Your task to perform on an android device: turn on bluetooth scan Image 0: 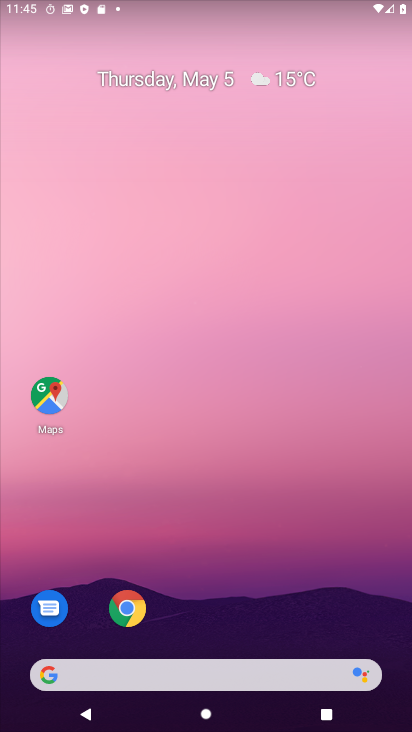
Step 0: drag from (184, 513) to (150, 81)
Your task to perform on an android device: turn on bluetooth scan Image 1: 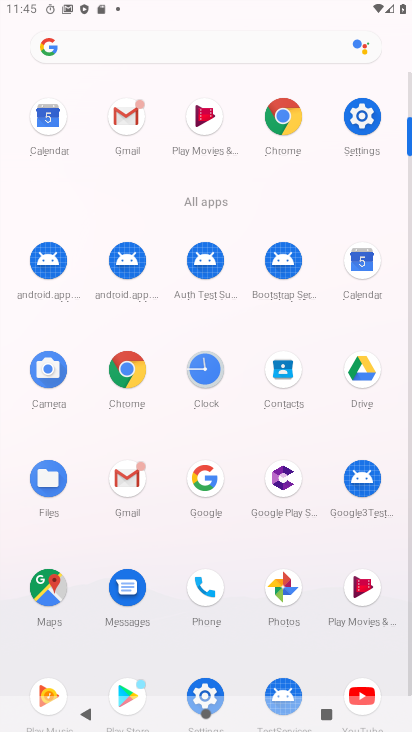
Step 1: click (363, 114)
Your task to perform on an android device: turn on bluetooth scan Image 2: 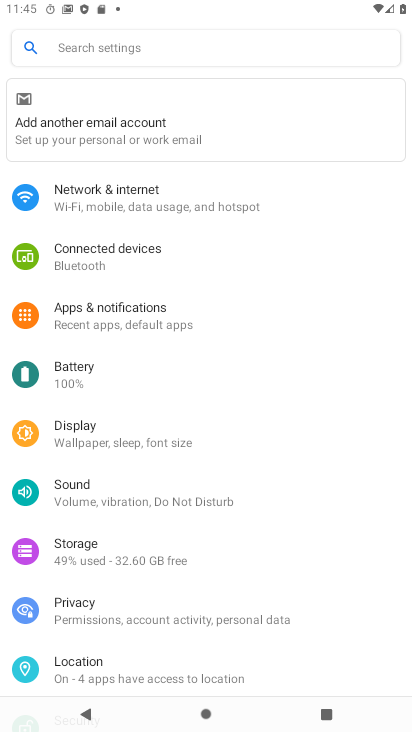
Step 2: drag from (138, 507) to (221, 378)
Your task to perform on an android device: turn on bluetooth scan Image 3: 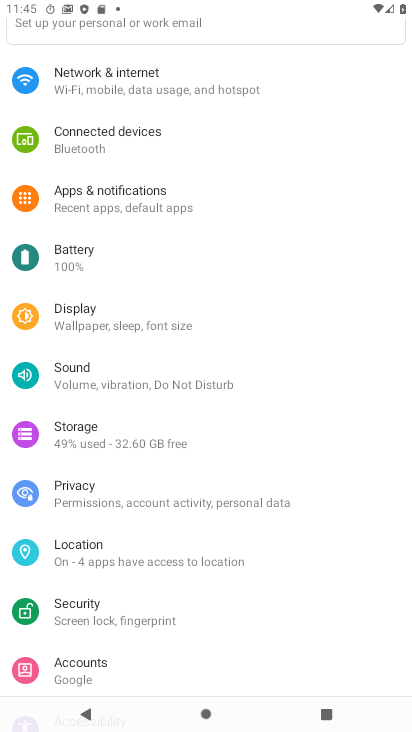
Step 3: click (133, 563)
Your task to perform on an android device: turn on bluetooth scan Image 4: 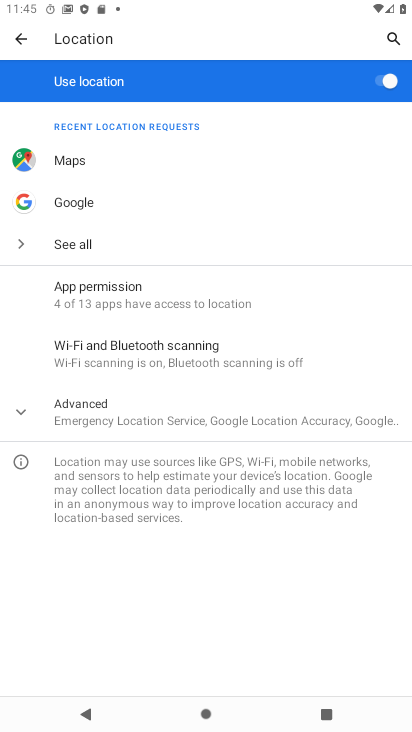
Step 4: click (148, 348)
Your task to perform on an android device: turn on bluetooth scan Image 5: 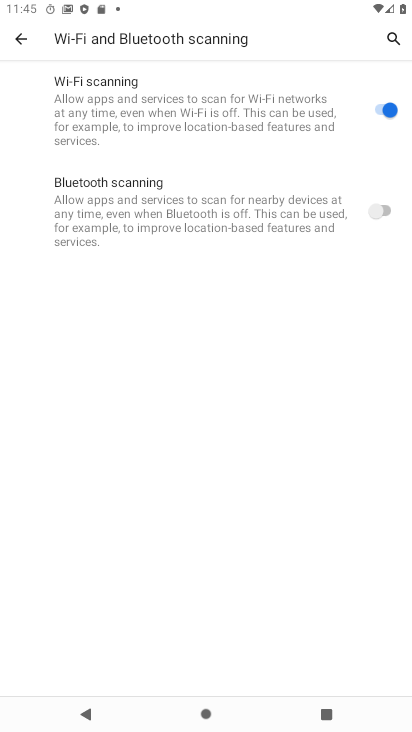
Step 5: click (376, 210)
Your task to perform on an android device: turn on bluetooth scan Image 6: 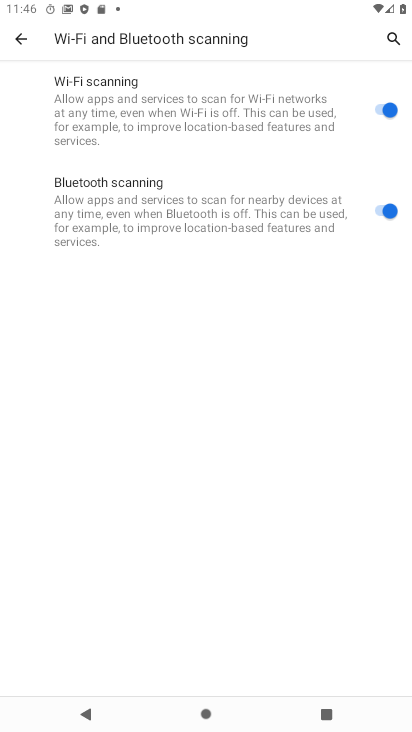
Step 6: task complete